Your task to perform on an android device: Show the shopping cart on bestbuy.com. Add razer blade to the cart on bestbuy.com Image 0: 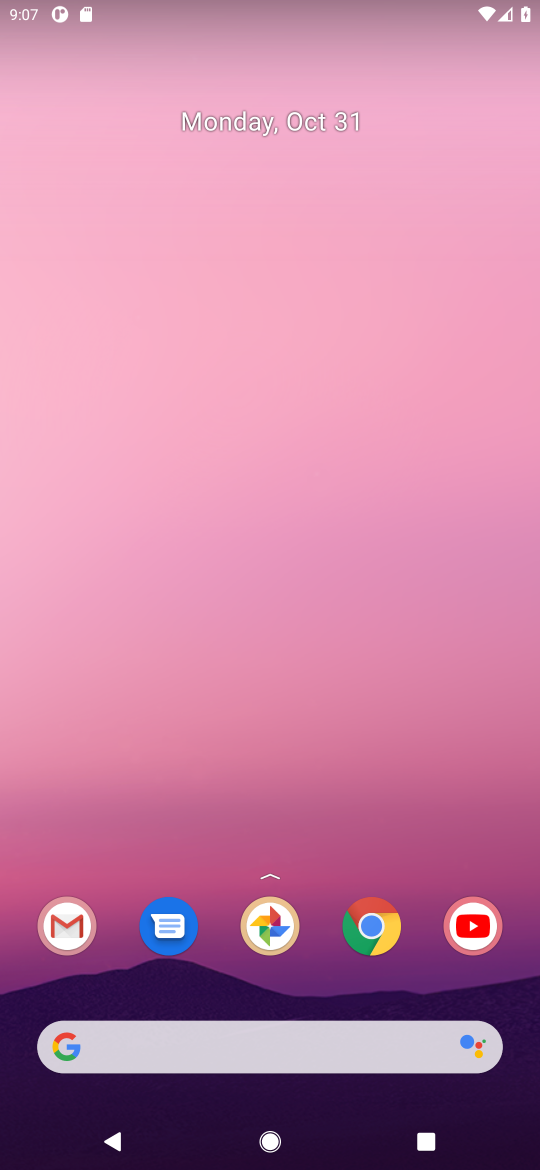
Step 0: click (372, 925)
Your task to perform on an android device: Show the shopping cart on bestbuy.com. Add razer blade to the cart on bestbuy.com Image 1: 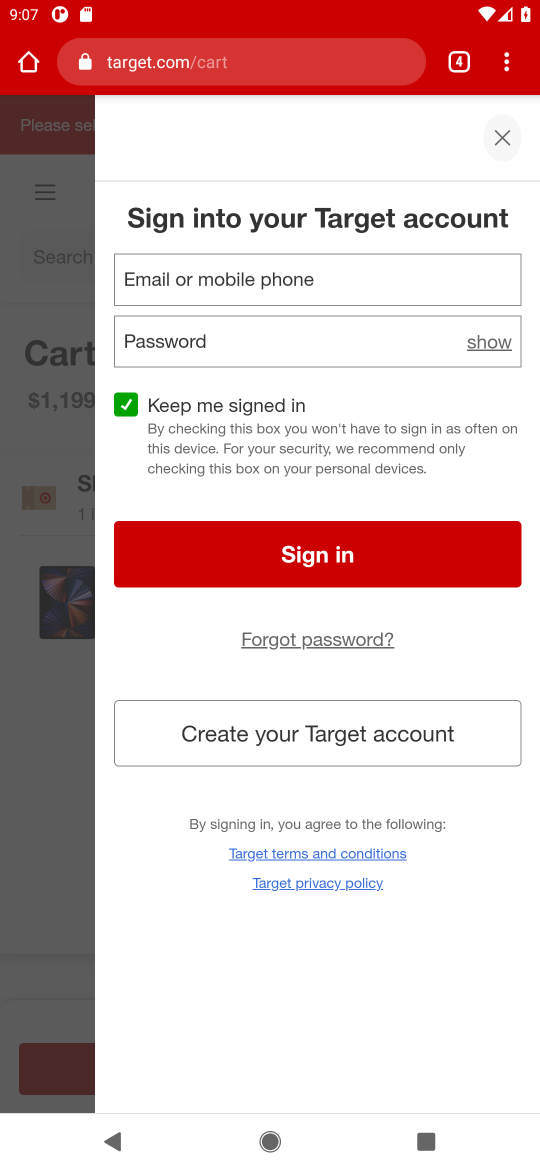
Step 1: click (455, 66)
Your task to perform on an android device: Show the shopping cart on bestbuy.com. Add razer blade to the cart on bestbuy.com Image 2: 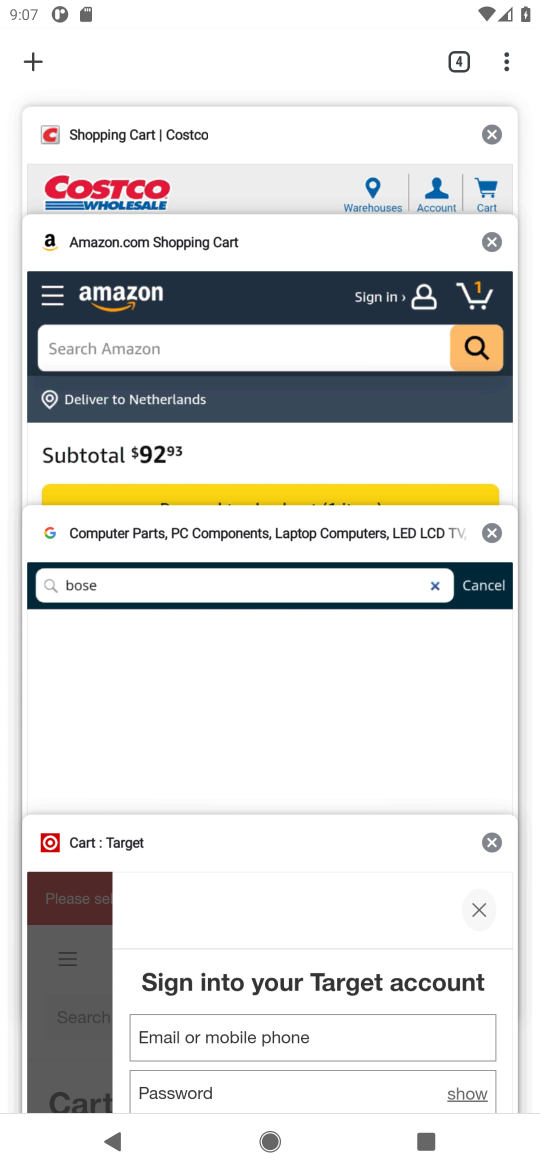
Step 2: click (28, 55)
Your task to perform on an android device: Show the shopping cart on bestbuy.com. Add razer blade to the cart on bestbuy.com Image 3: 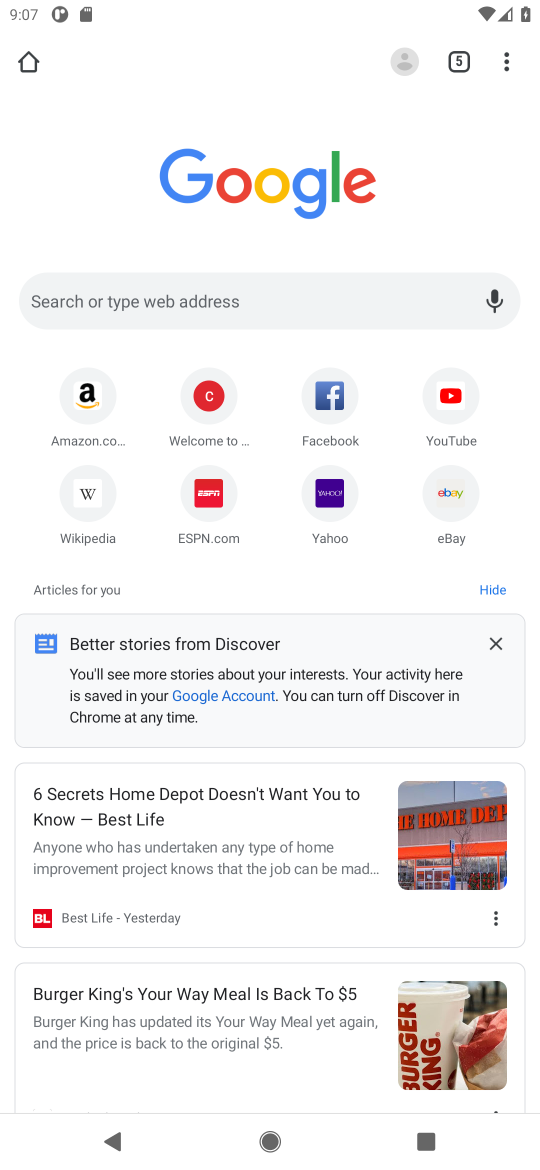
Step 3: click (217, 286)
Your task to perform on an android device: Show the shopping cart on bestbuy.com. Add razer blade to the cart on bestbuy.com Image 4: 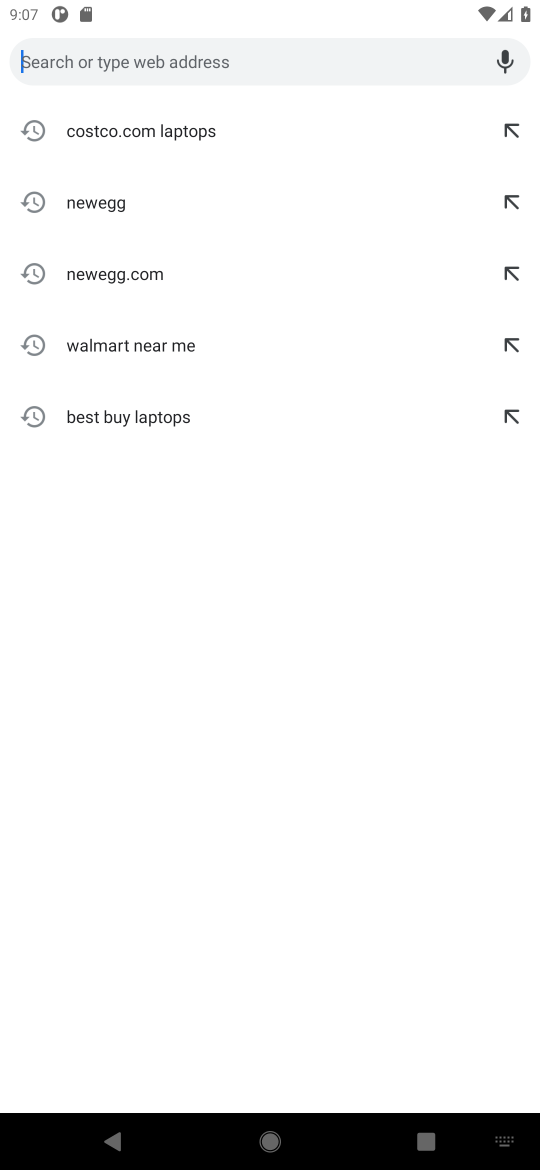
Step 4: type "bestbuy"
Your task to perform on an android device: Show the shopping cart on bestbuy.com. Add razer blade to the cart on bestbuy.com Image 5: 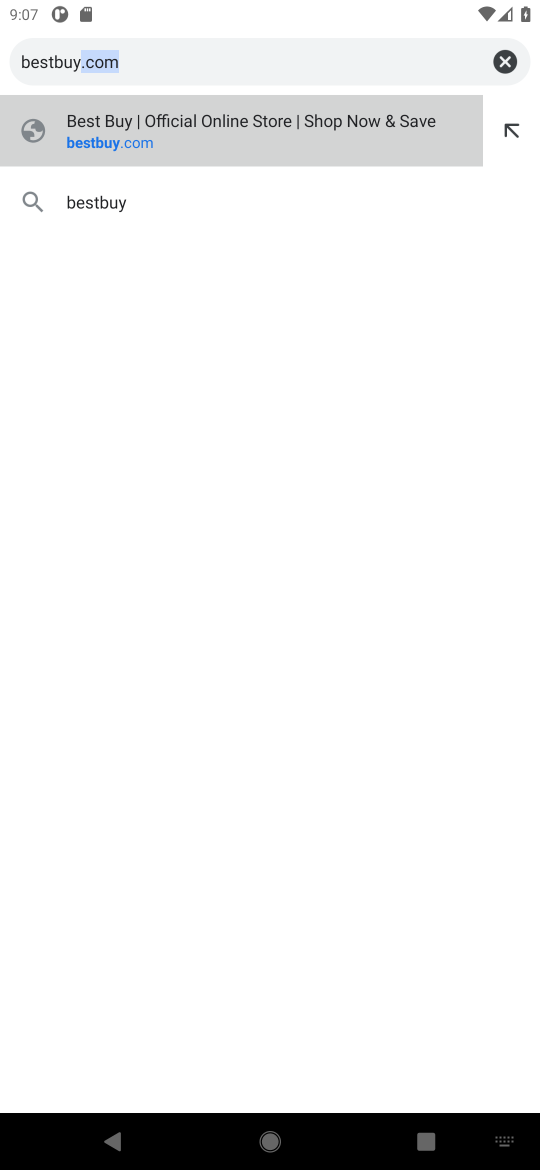
Step 5: click (74, 145)
Your task to perform on an android device: Show the shopping cart on bestbuy.com. Add razer blade to the cart on bestbuy.com Image 6: 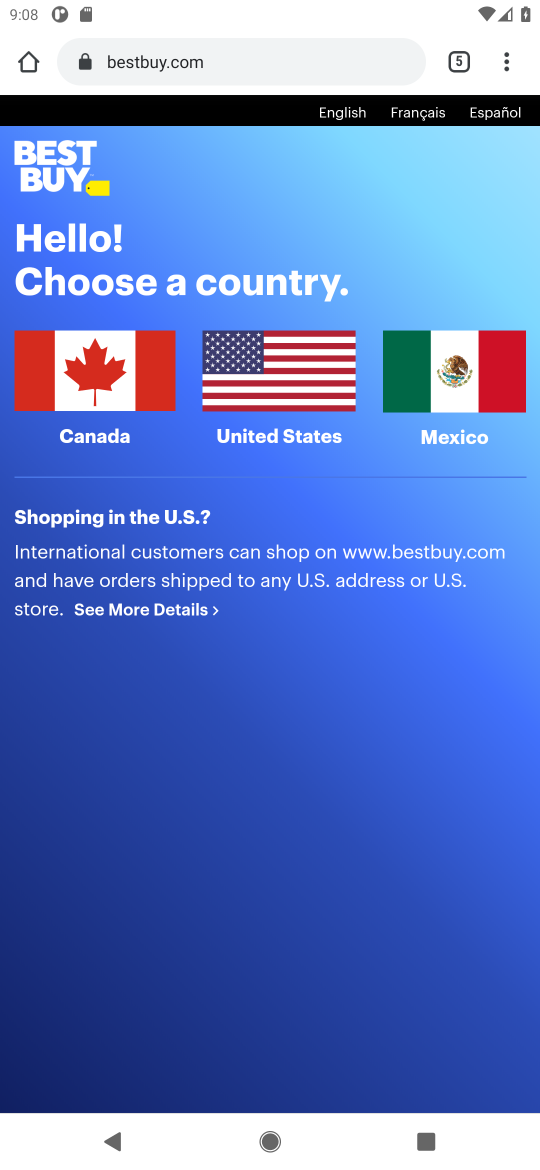
Step 6: click (255, 384)
Your task to perform on an android device: Show the shopping cart on bestbuy.com. Add razer blade to the cart on bestbuy.com Image 7: 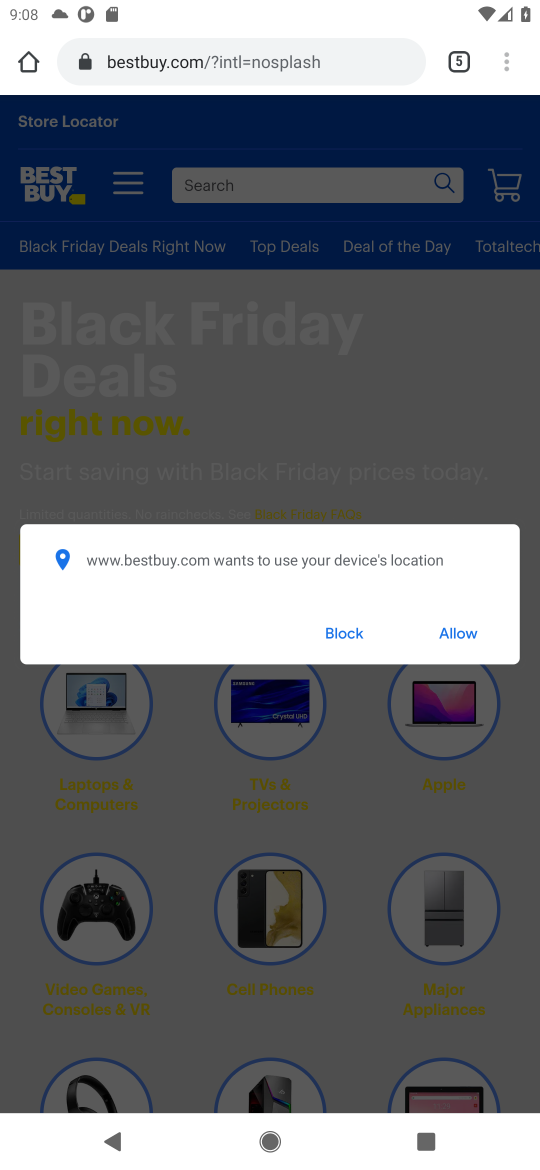
Step 7: click (341, 634)
Your task to perform on an android device: Show the shopping cart on bestbuy.com. Add razer blade to the cart on bestbuy.com Image 8: 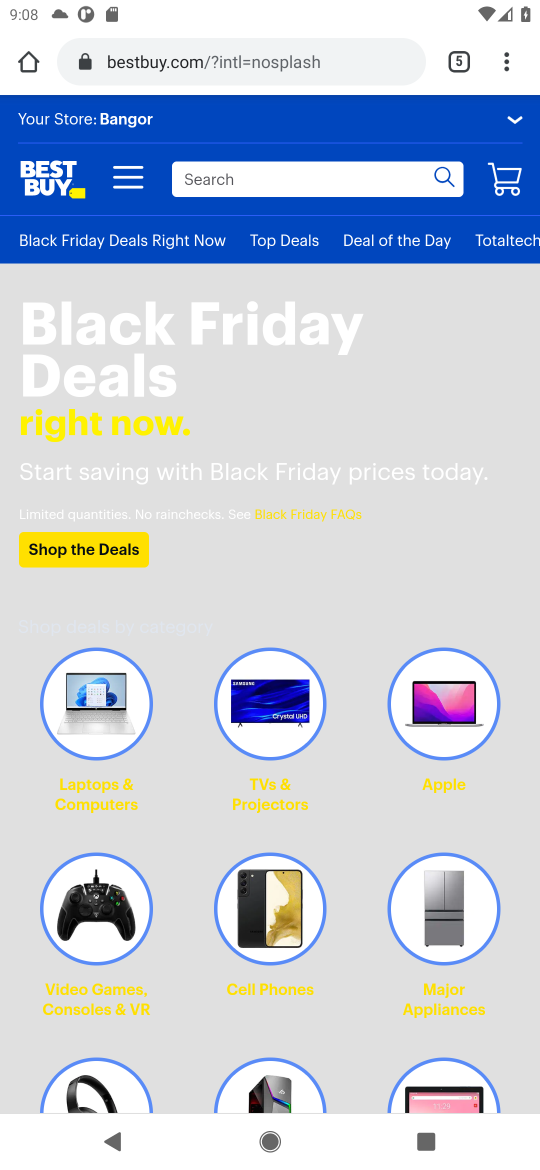
Step 8: click (335, 174)
Your task to perform on an android device: Show the shopping cart on bestbuy.com. Add razer blade to the cart on bestbuy.com Image 9: 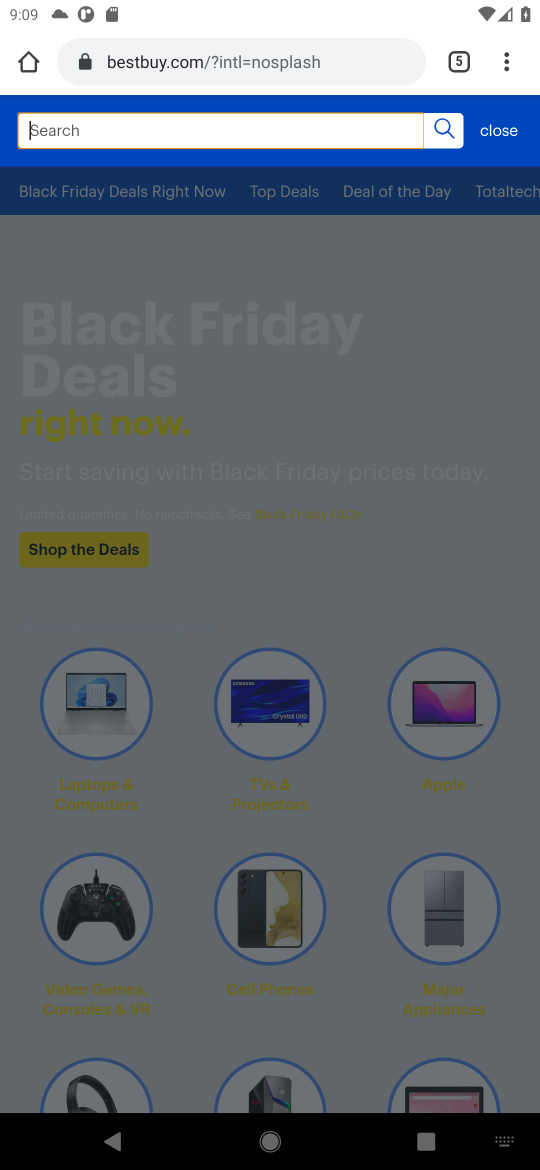
Step 9: type "razer blade"
Your task to perform on an android device: Show the shopping cart on bestbuy.com. Add razer blade to the cart on bestbuy.com Image 10: 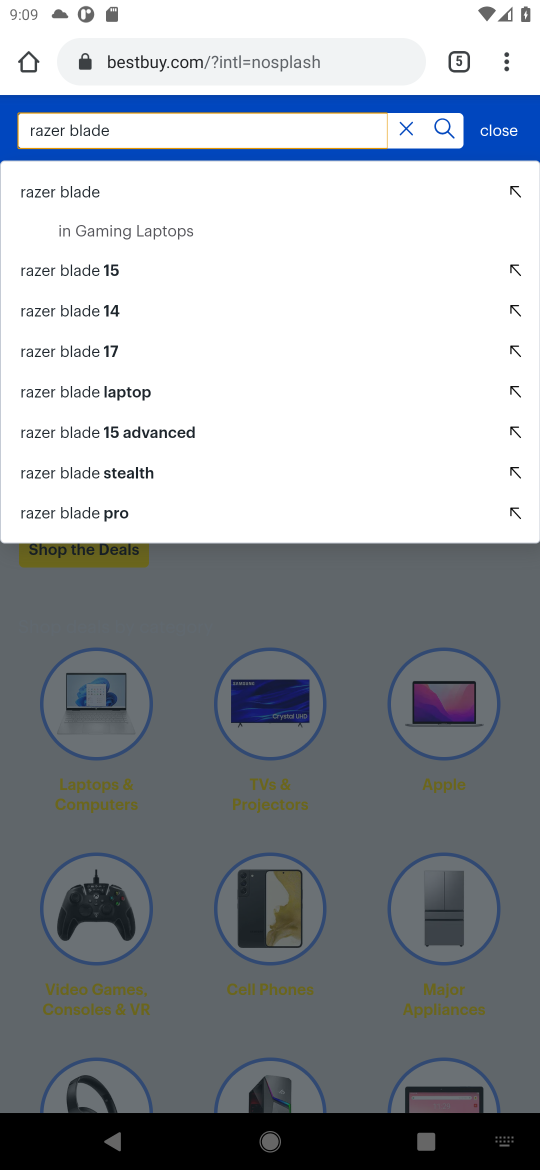
Step 10: click (41, 186)
Your task to perform on an android device: Show the shopping cart on bestbuy.com. Add razer blade to the cart on bestbuy.com Image 11: 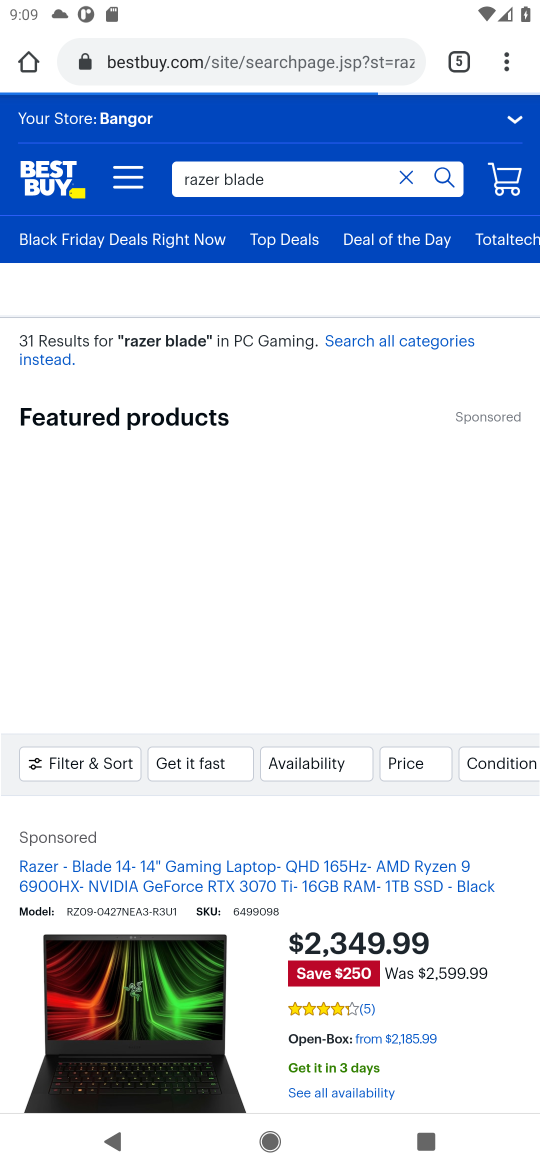
Step 11: drag from (281, 1040) to (398, 461)
Your task to perform on an android device: Show the shopping cart on bestbuy.com. Add razer blade to the cart on bestbuy.com Image 12: 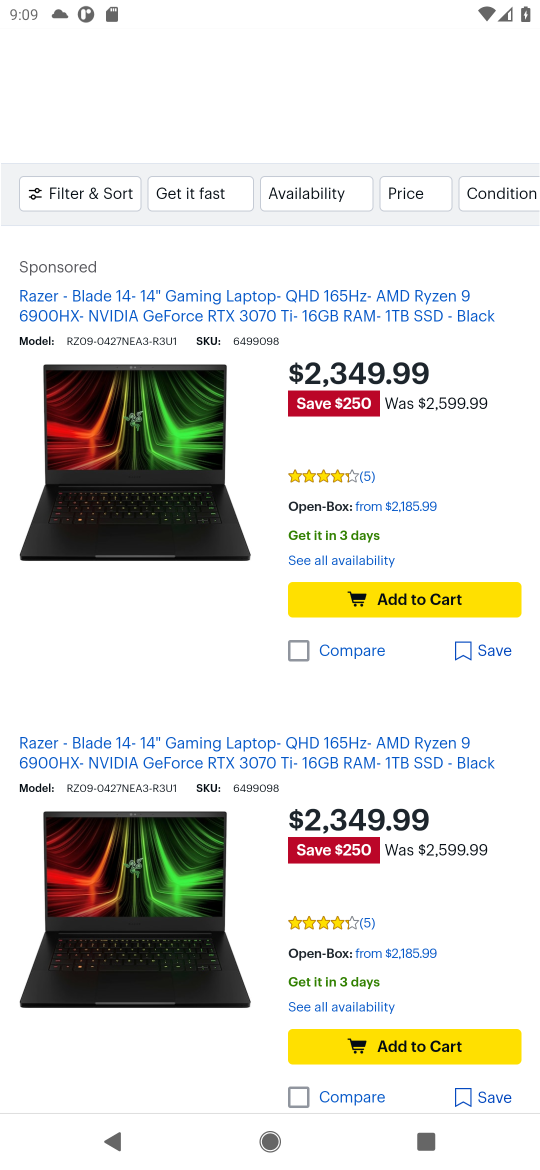
Step 12: click (415, 554)
Your task to perform on an android device: Show the shopping cart on bestbuy.com. Add razer blade to the cart on bestbuy.com Image 13: 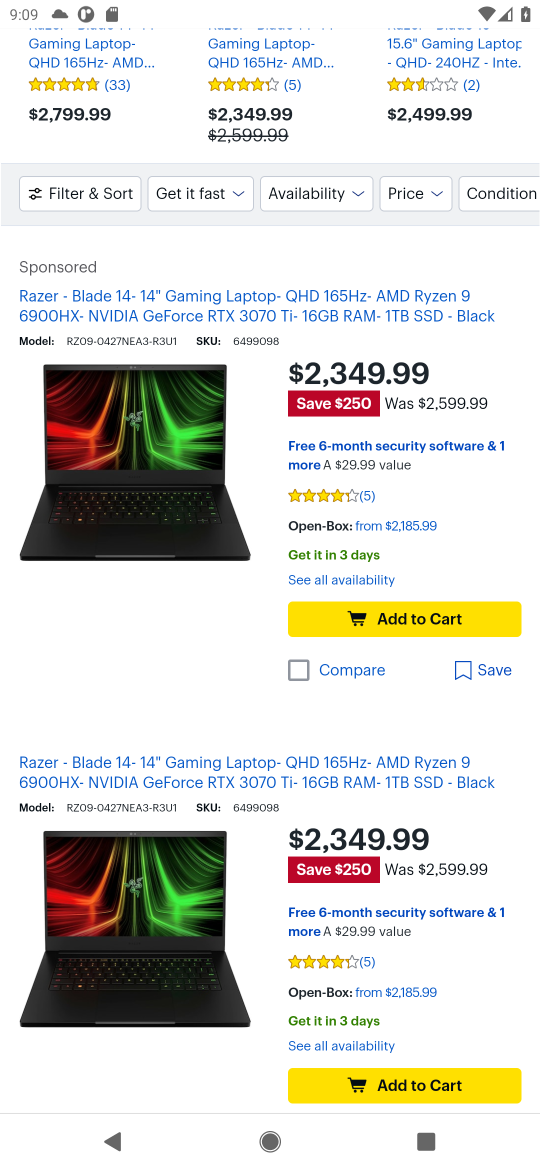
Step 13: click (430, 614)
Your task to perform on an android device: Show the shopping cart on bestbuy.com. Add razer blade to the cart on bestbuy.com Image 14: 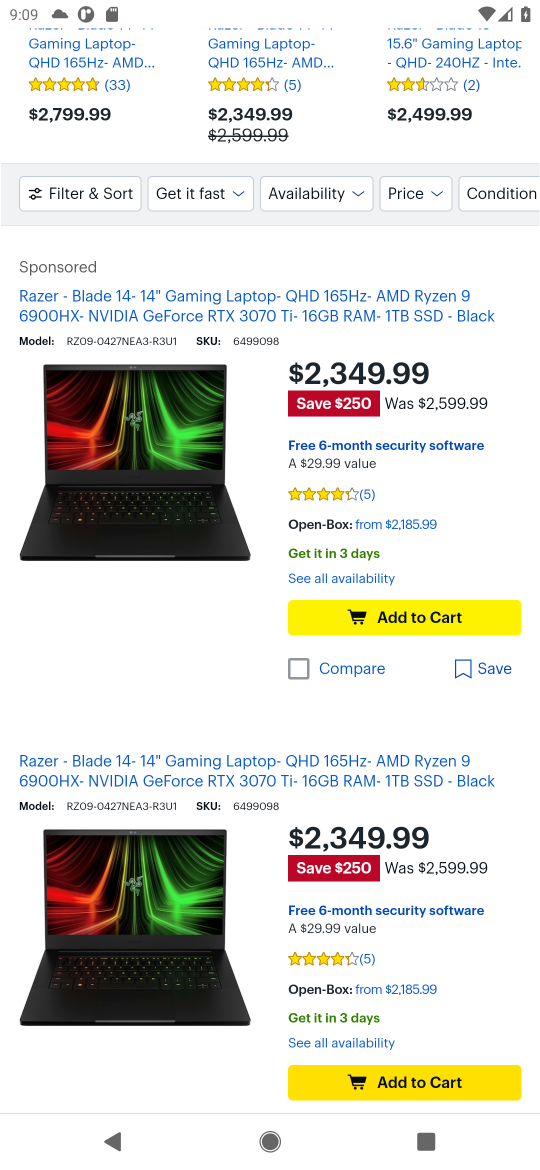
Step 14: task complete